Your task to perform on an android device: Go to notification settings Image 0: 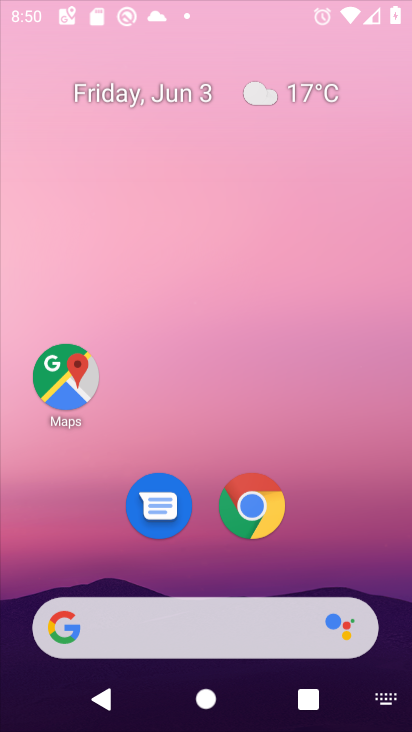
Step 0: drag from (187, 17) to (254, 19)
Your task to perform on an android device: Go to notification settings Image 1: 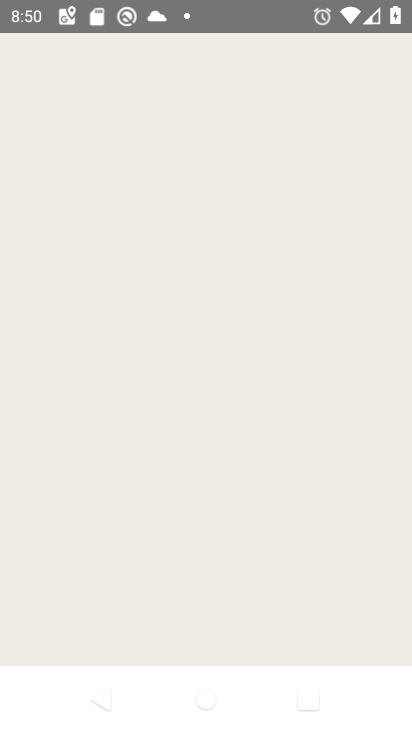
Step 1: press home button
Your task to perform on an android device: Go to notification settings Image 2: 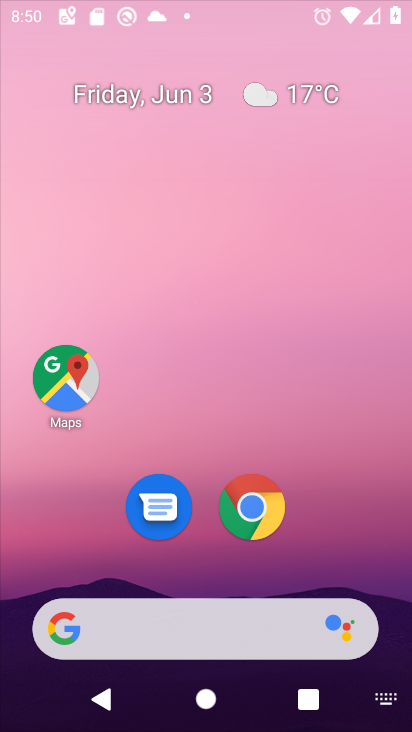
Step 2: drag from (294, 345) to (248, 0)
Your task to perform on an android device: Go to notification settings Image 3: 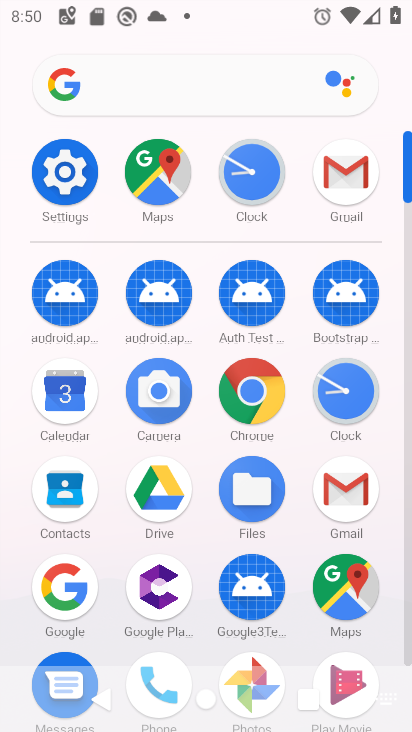
Step 3: click (64, 170)
Your task to perform on an android device: Go to notification settings Image 4: 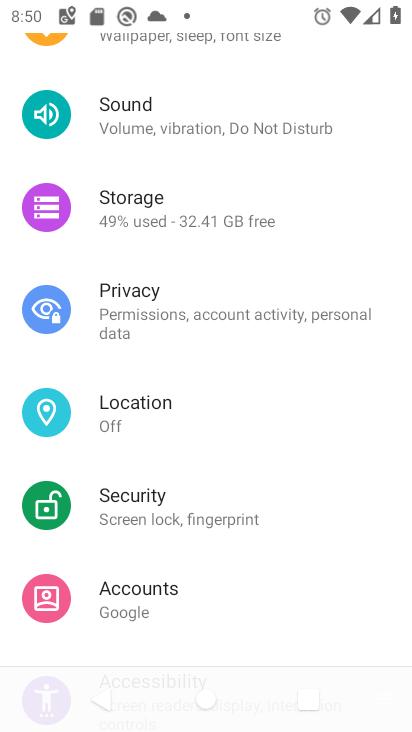
Step 4: drag from (285, 107) to (235, 699)
Your task to perform on an android device: Go to notification settings Image 5: 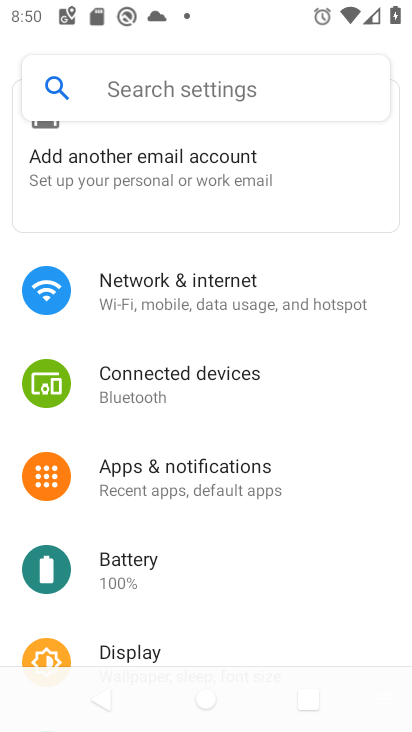
Step 5: click (223, 468)
Your task to perform on an android device: Go to notification settings Image 6: 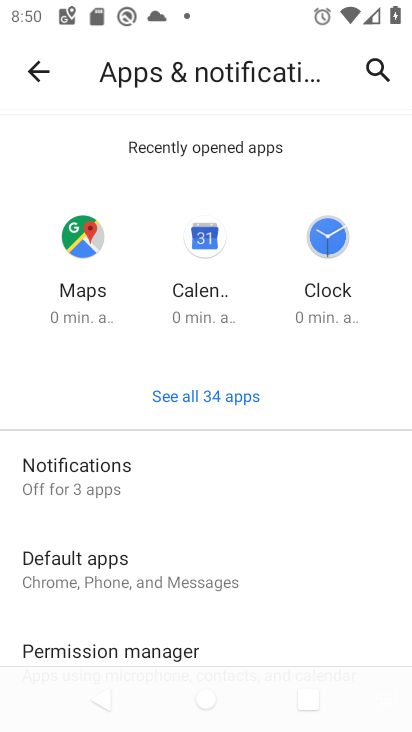
Step 6: task complete